Your task to perform on an android device: Open Google Maps and go to "Timeline" Image 0: 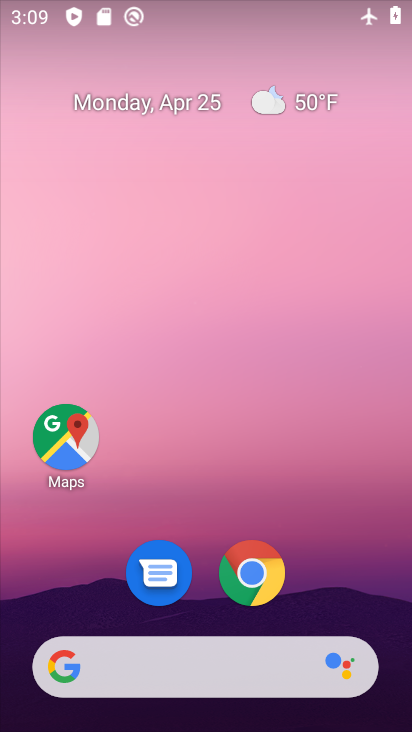
Step 0: drag from (358, 610) to (318, 60)
Your task to perform on an android device: Open Google Maps and go to "Timeline" Image 1: 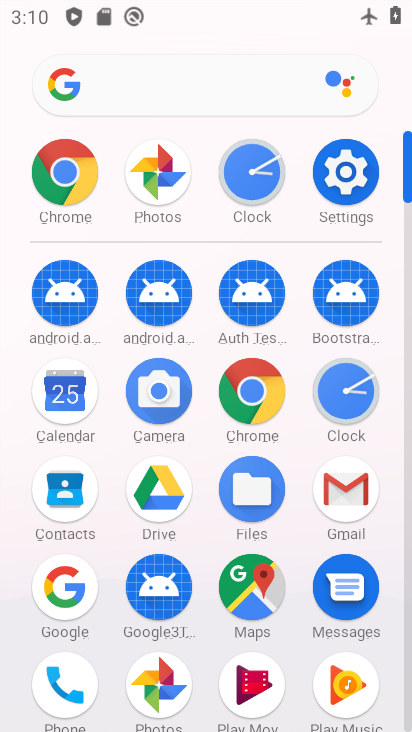
Step 1: click (279, 584)
Your task to perform on an android device: Open Google Maps and go to "Timeline" Image 2: 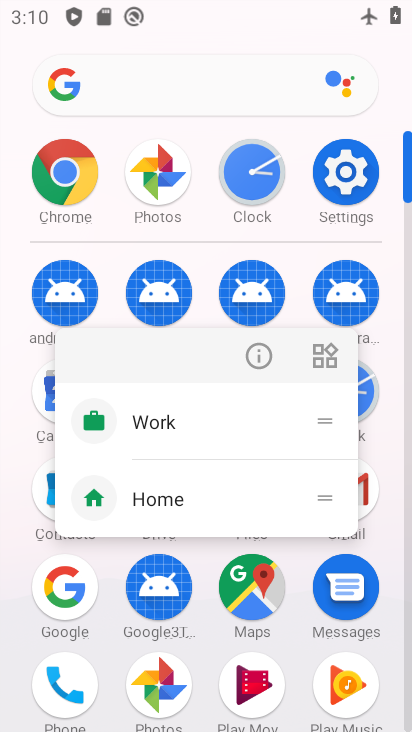
Step 2: click (279, 584)
Your task to perform on an android device: Open Google Maps and go to "Timeline" Image 3: 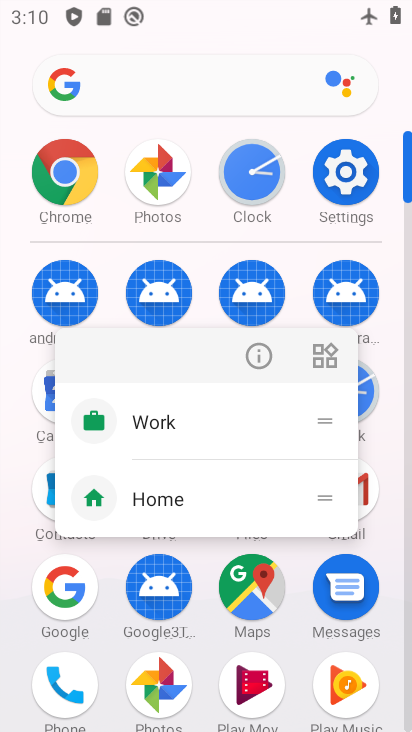
Step 3: click (271, 583)
Your task to perform on an android device: Open Google Maps and go to "Timeline" Image 4: 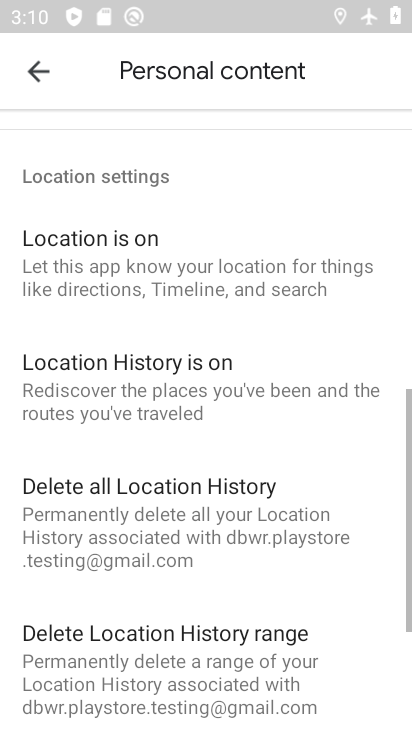
Step 4: click (51, 65)
Your task to perform on an android device: Open Google Maps and go to "Timeline" Image 5: 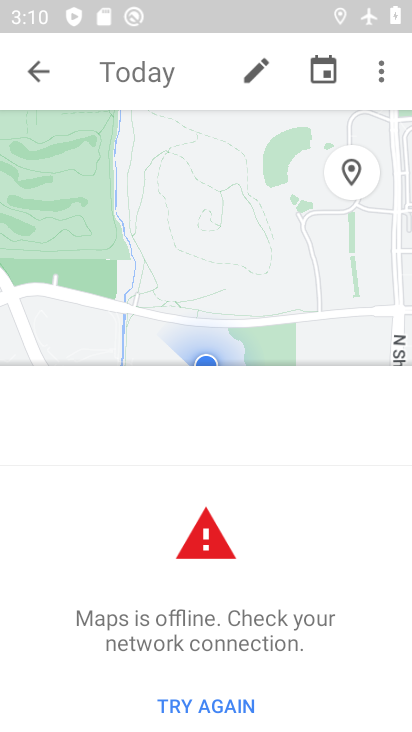
Step 5: click (51, 65)
Your task to perform on an android device: Open Google Maps and go to "Timeline" Image 6: 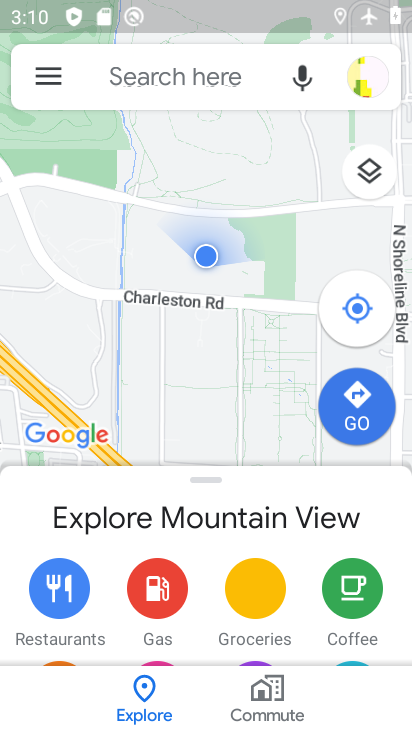
Step 6: click (35, 85)
Your task to perform on an android device: Open Google Maps and go to "Timeline" Image 7: 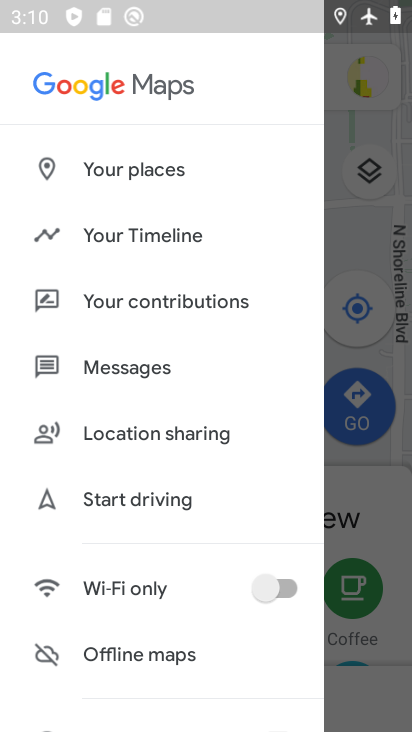
Step 7: click (127, 237)
Your task to perform on an android device: Open Google Maps and go to "Timeline" Image 8: 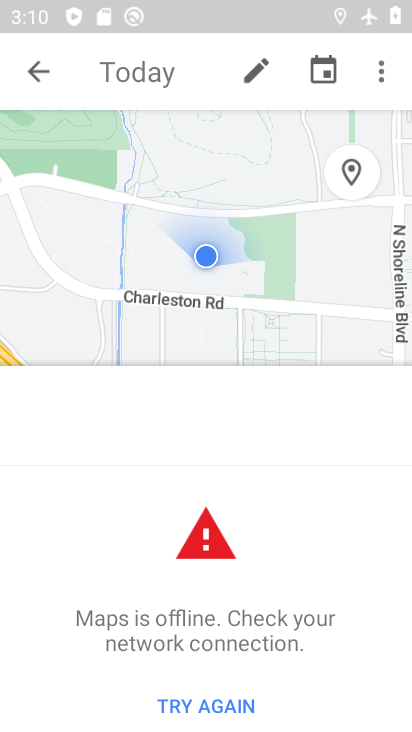
Step 8: task complete